Your task to perform on an android device: Search for pizza restaurants on Maps Image 0: 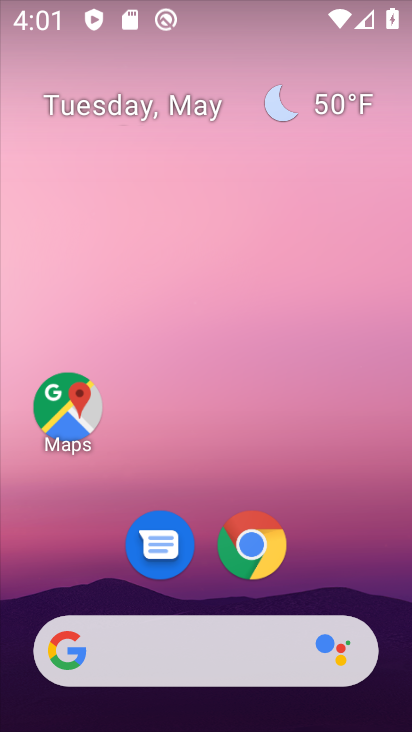
Step 0: click (76, 406)
Your task to perform on an android device: Search for pizza restaurants on Maps Image 1: 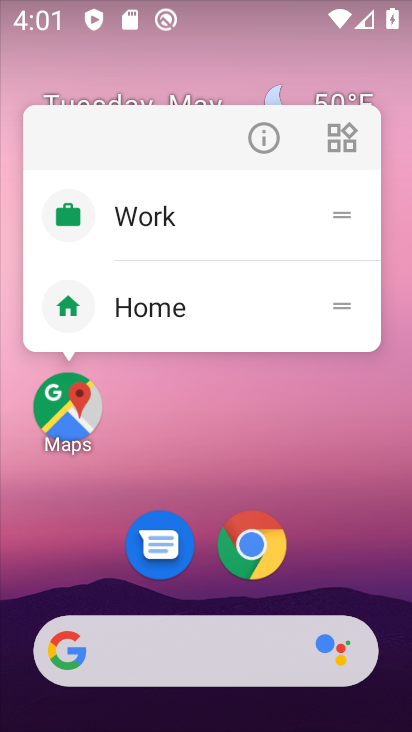
Step 1: click (76, 406)
Your task to perform on an android device: Search for pizza restaurants on Maps Image 2: 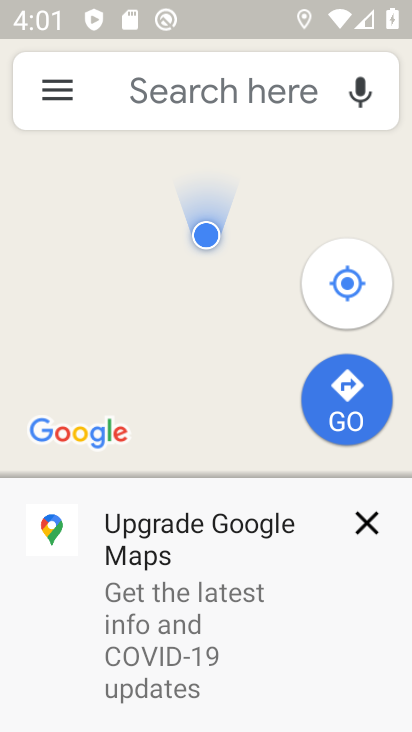
Step 2: click (204, 80)
Your task to perform on an android device: Search for pizza restaurants on Maps Image 3: 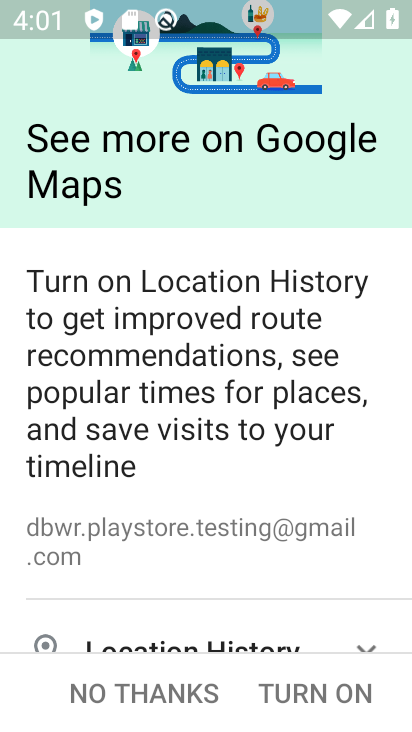
Step 3: click (170, 675)
Your task to perform on an android device: Search for pizza restaurants on Maps Image 4: 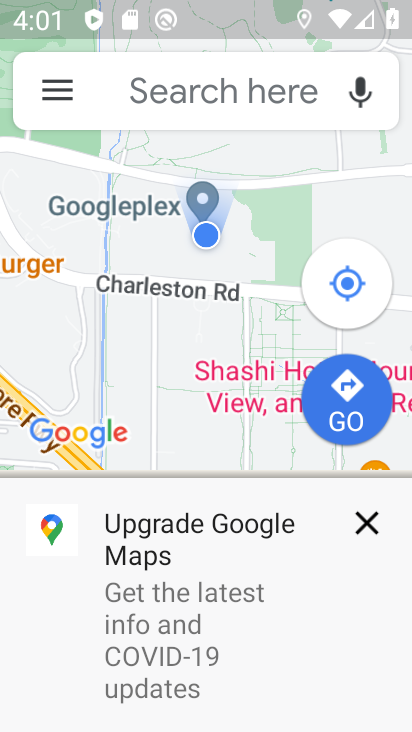
Step 4: click (378, 515)
Your task to perform on an android device: Search for pizza restaurants on Maps Image 5: 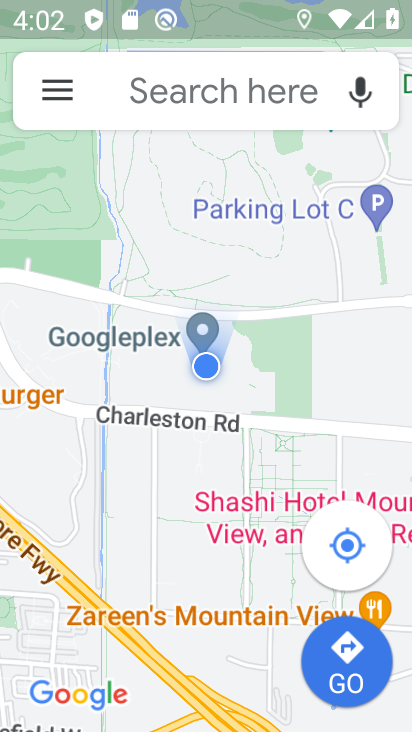
Step 5: click (175, 81)
Your task to perform on an android device: Search for pizza restaurants on Maps Image 6: 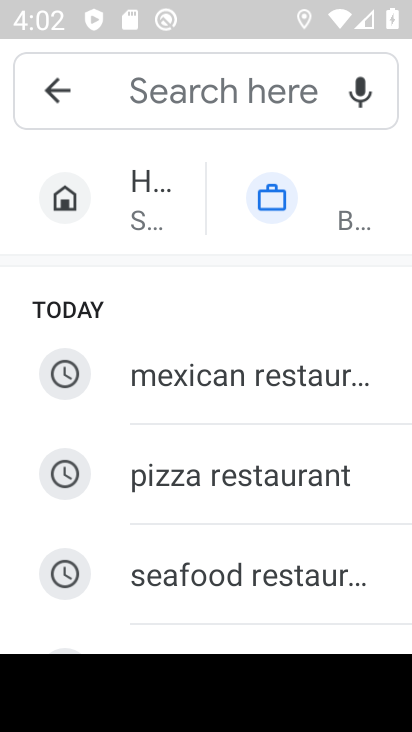
Step 6: type "Pizza restaurants"
Your task to perform on an android device: Search for pizza restaurants on Maps Image 7: 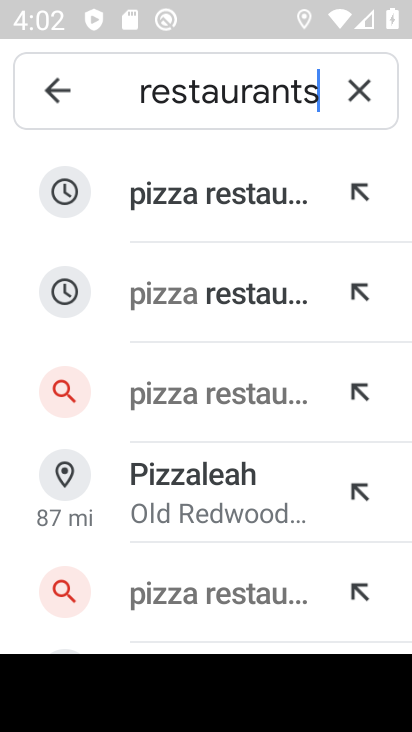
Step 7: click (240, 209)
Your task to perform on an android device: Search for pizza restaurants on Maps Image 8: 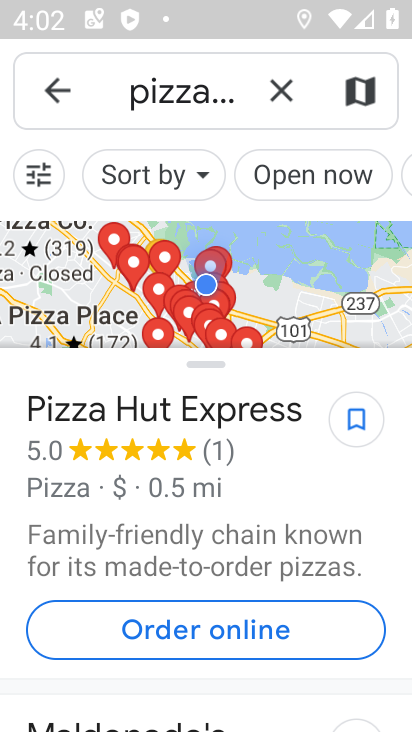
Step 8: task complete